Your task to perform on an android device: Open Google Chrome and open the bookmarks view Image 0: 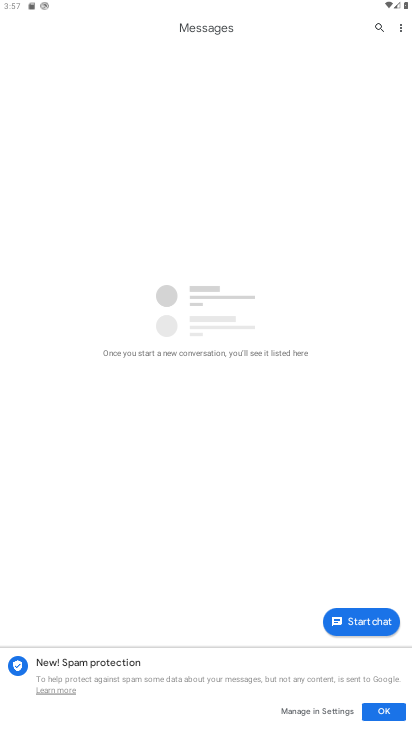
Step 0: press home button
Your task to perform on an android device: Open Google Chrome and open the bookmarks view Image 1: 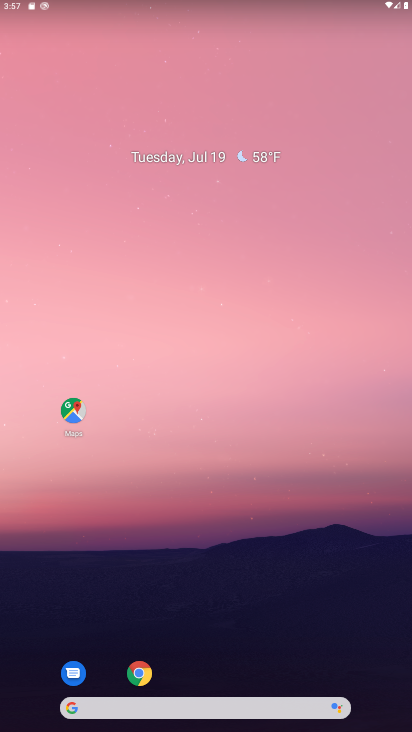
Step 1: drag from (270, 710) to (245, 20)
Your task to perform on an android device: Open Google Chrome and open the bookmarks view Image 2: 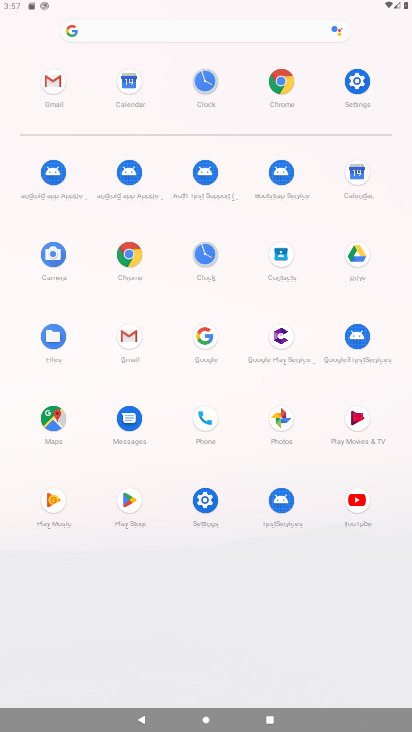
Step 2: click (121, 253)
Your task to perform on an android device: Open Google Chrome and open the bookmarks view Image 3: 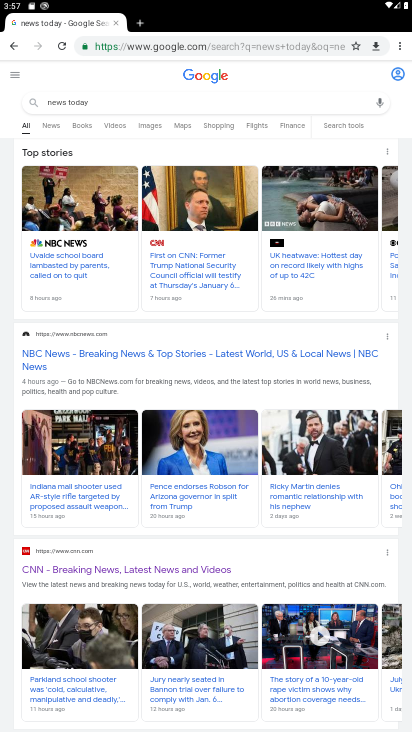
Step 3: task complete